Your task to perform on an android device: Open CNN.com Image 0: 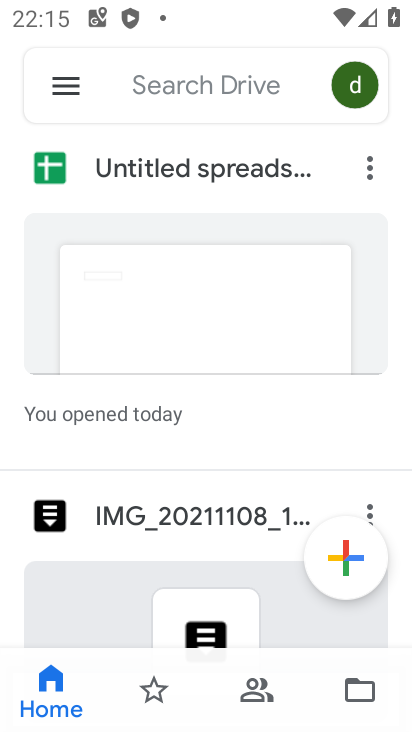
Step 0: press home button
Your task to perform on an android device: Open CNN.com Image 1: 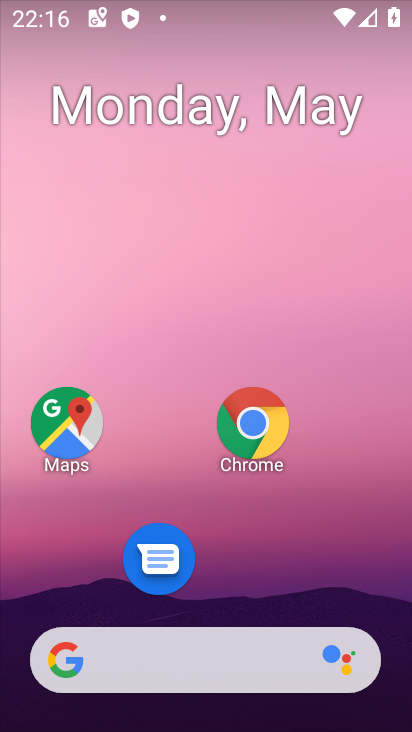
Step 1: click (228, 668)
Your task to perform on an android device: Open CNN.com Image 2: 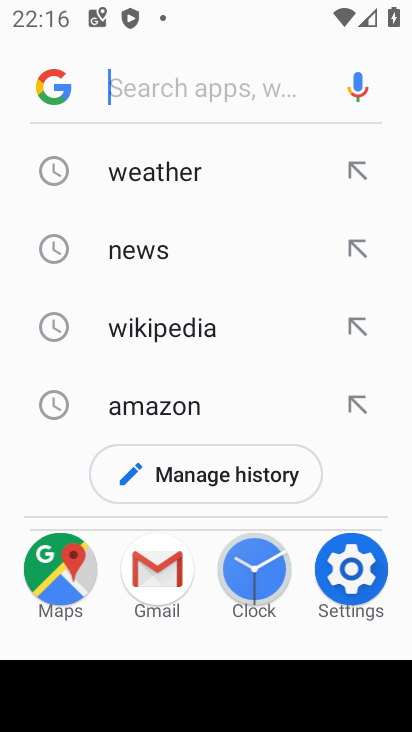
Step 2: type "cnn"
Your task to perform on an android device: Open CNN.com Image 3: 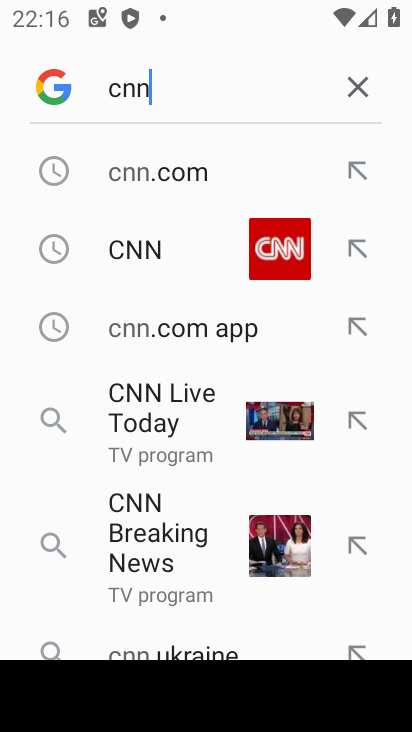
Step 3: click (131, 241)
Your task to perform on an android device: Open CNN.com Image 4: 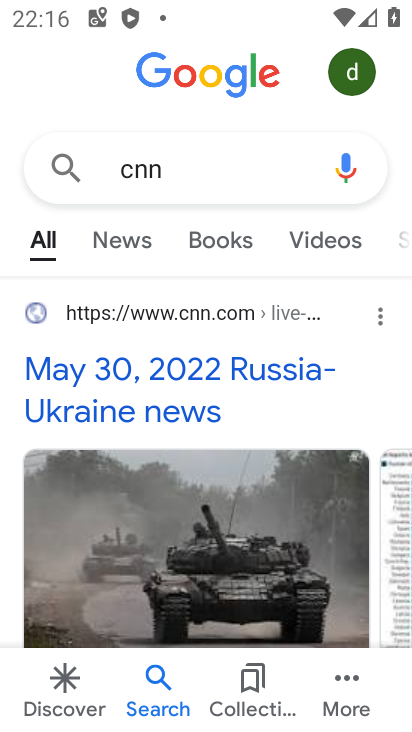
Step 4: task complete